Your task to perform on an android device: open device folders in google photos Image 0: 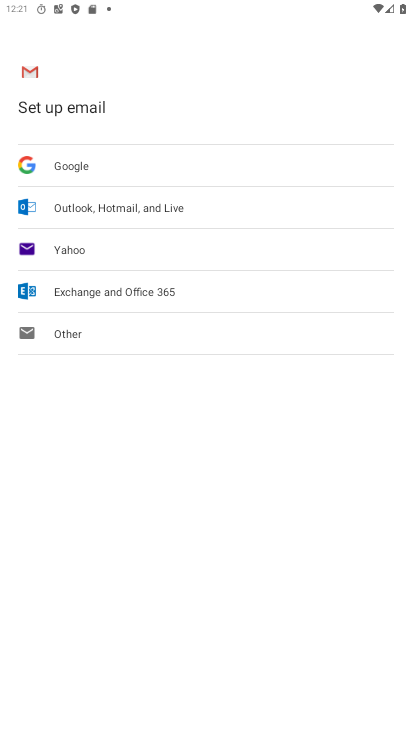
Step 0: press home button
Your task to perform on an android device: open device folders in google photos Image 1: 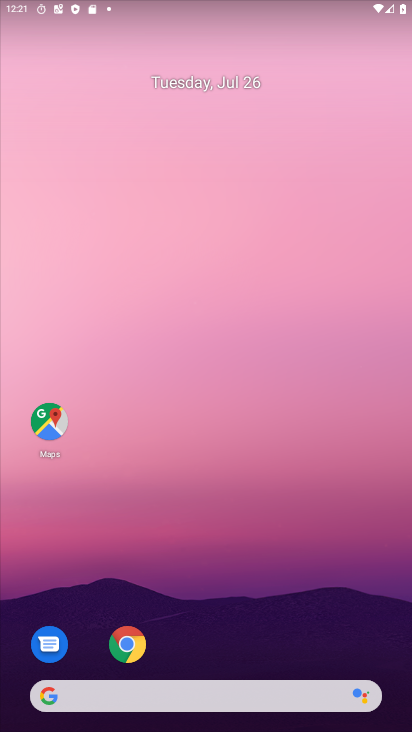
Step 1: drag from (246, 533) to (276, 29)
Your task to perform on an android device: open device folders in google photos Image 2: 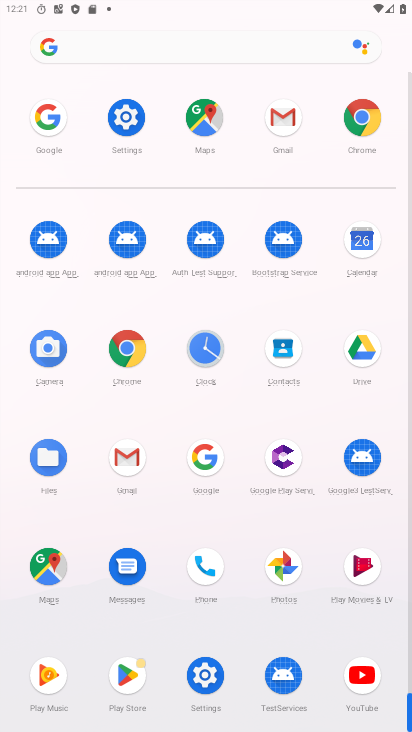
Step 2: click (290, 562)
Your task to perform on an android device: open device folders in google photos Image 3: 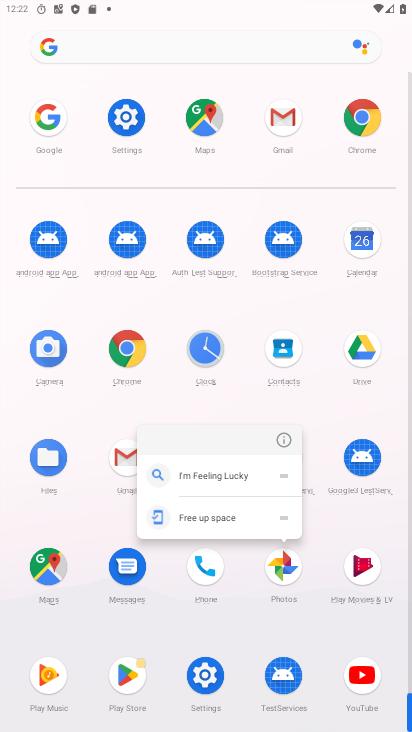
Step 3: click (291, 581)
Your task to perform on an android device: open device folders in google photos Image 4: 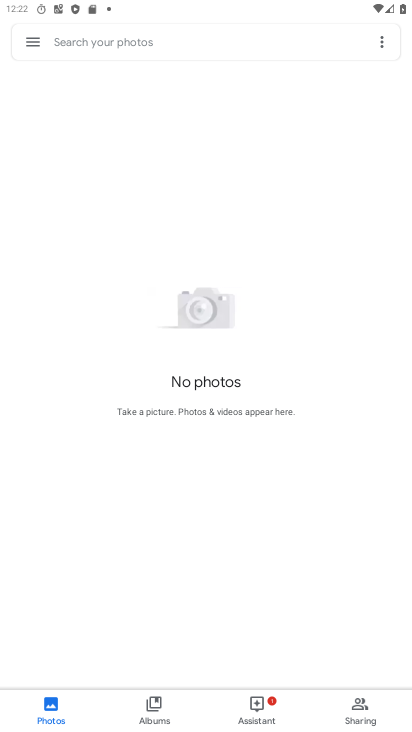
Step 4: click (37, 37)
Your task to perform on an android device: open device folders in google photos Image 5: 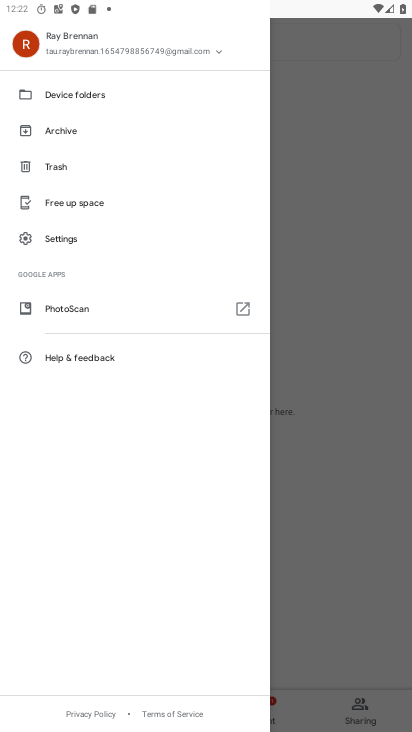
Step 5: click (75, 96)
Your task to perform on an android device: open device folders in google photos Image 6: 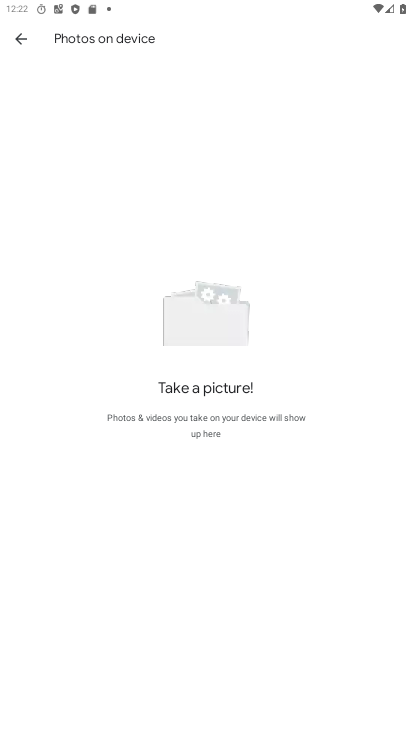
Step 6: task complete